Your task to perform on an android device: Open Maps and search for coffee Image 0: 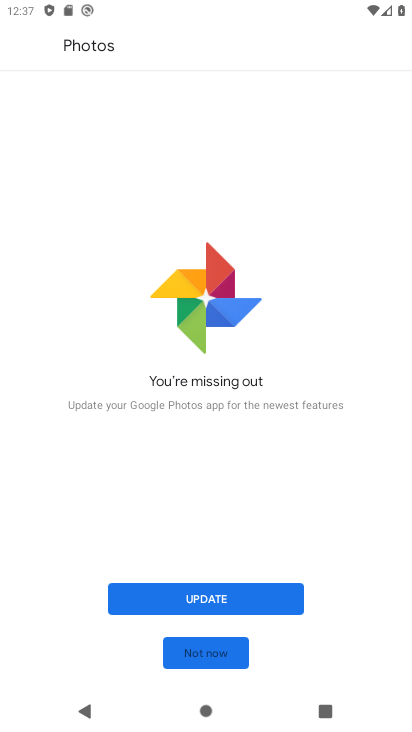
Step 0: press home button
Your task to perform on an android device: Open Maps and search for coffee Image 1: 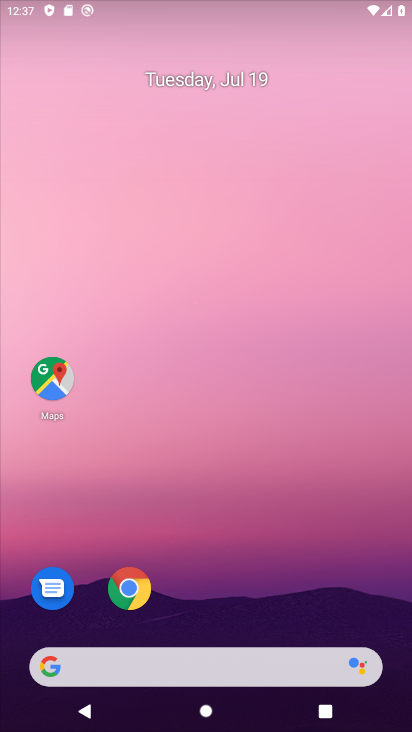
Step 1: drag from (292, 586) to (240, 0)
Your task to perform on an android device: Open Maps and search for coffee Image 2: 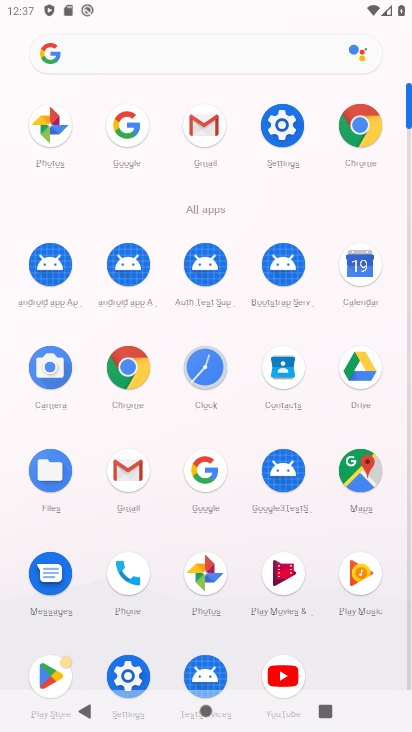
Step 2: click (362, 477)
Your task to perform on an android device: Open Maps and search for coffee Image 3: 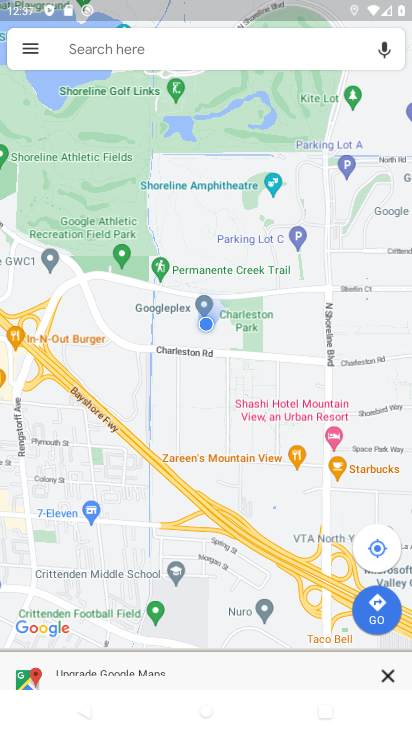
Step 3: click (131, 50)
Your task to perform on an android device: Open Maps and search for coffee Image 4: 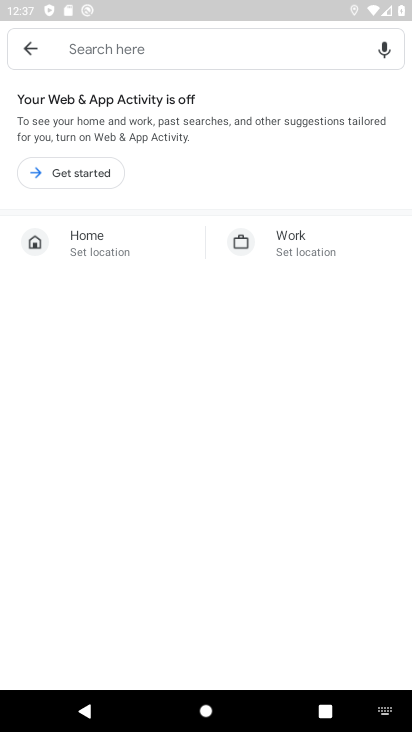
Step 4: type "coffee"
Your task to perform on an android device: Open Maps and search for coffee Image 5: 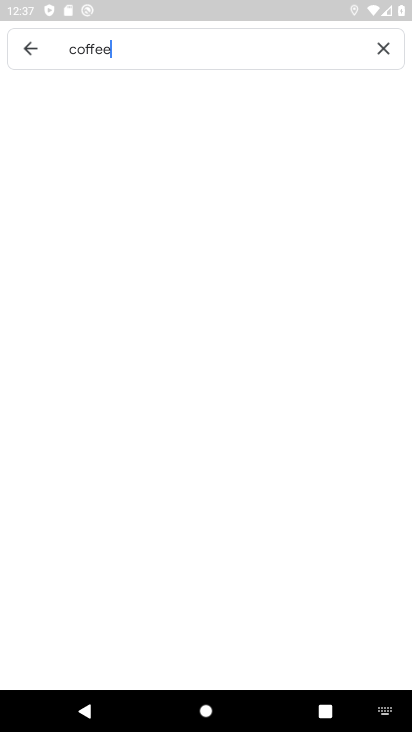
Step 5: press enter
Your task to perform on an android device: Open Maps and search for coffee Image 6: 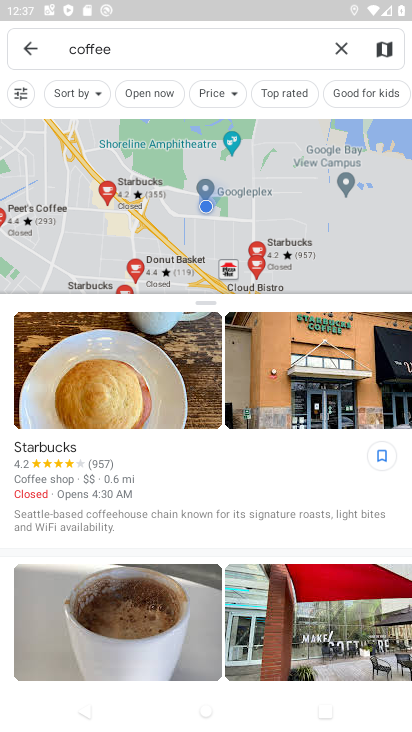
Step 6: task complete